Your task to perform on an android device: Open Google Image 0: 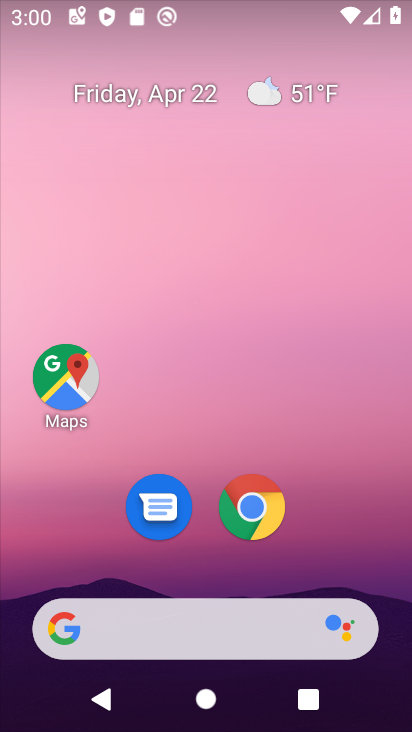
Step 0: drag from (197, 523) to (215, 123)
Your task to perform on an android device: Open Google Image 1: 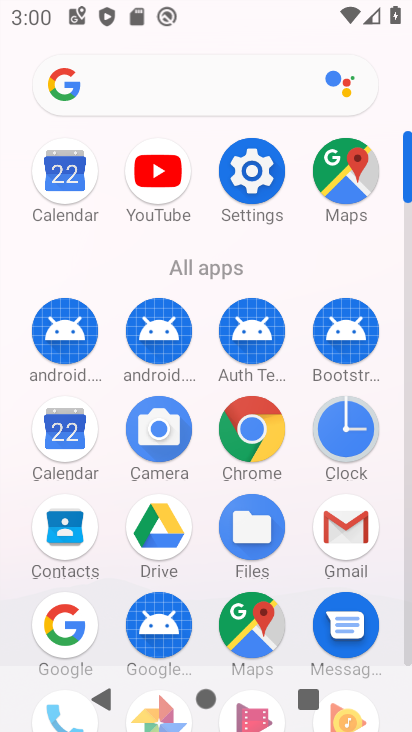
Step 1: click (60, 630)
Your task to perform on an android device: Open Google Image 2: 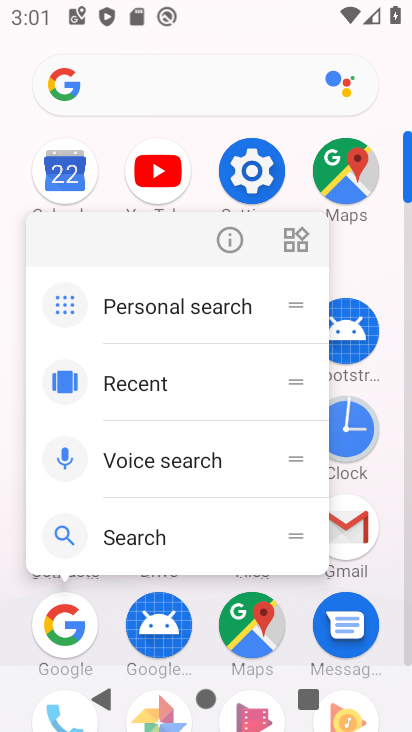
Step 2: click (60, 626)
Your task to perform on an android device: Open Google Image 3: 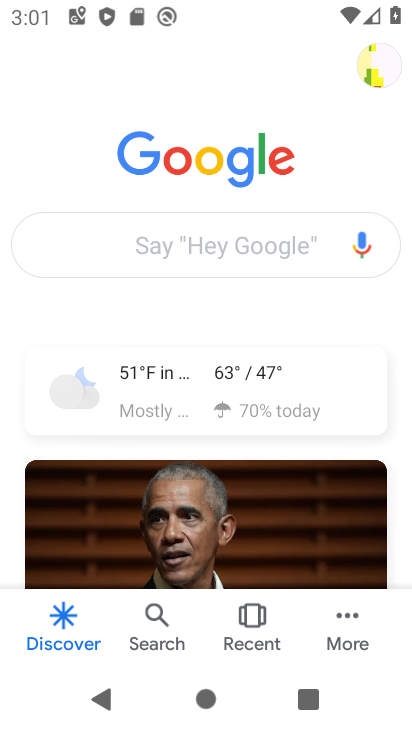
Step 3: task complete